Your task to perform on an android device: Go to location settings Image 0: 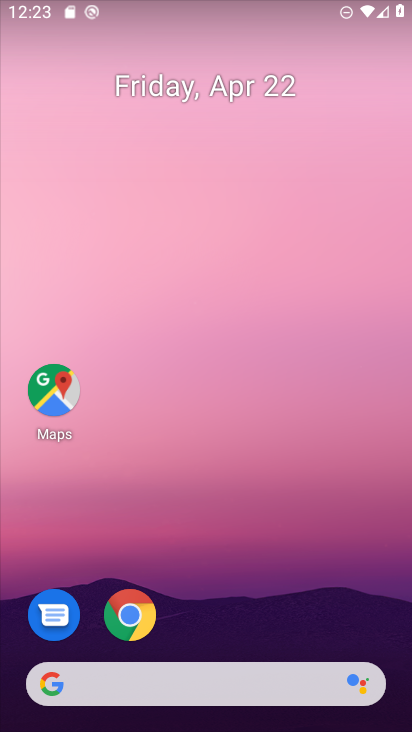
Step 0: drag from (186, 598) to (320, 73)
Your task to perform on an android device: Go to location settings Image 1: 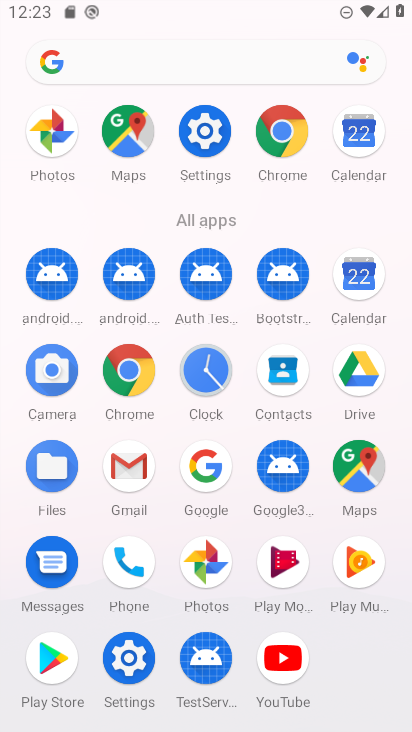
Step 1: click (137, 661)
Your task to perform on an android device: Go to location settings Image 2: 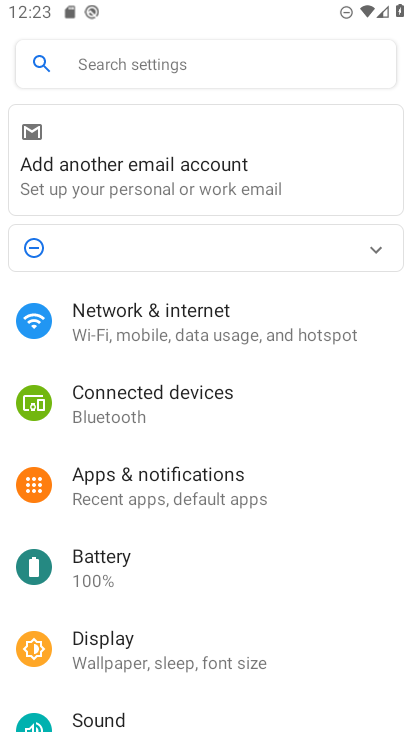
Step 2: drag from (173, 661) to (282, 212)
Your task to perform on an android device: Go to location settings Image 3: 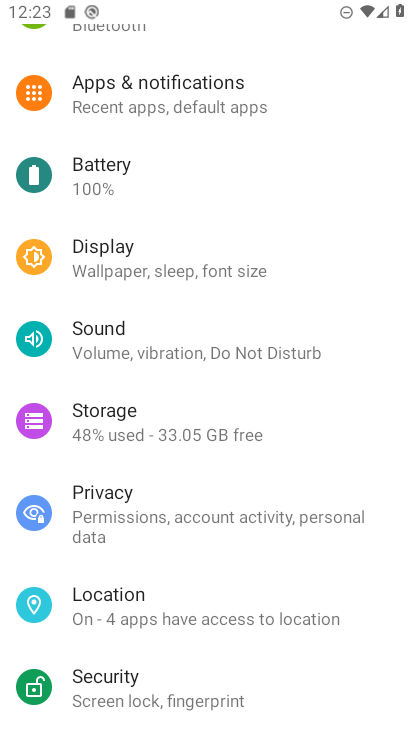
Step 3: click (154, 614)
Your task to perform on an android device: Go to location settings Image 4: 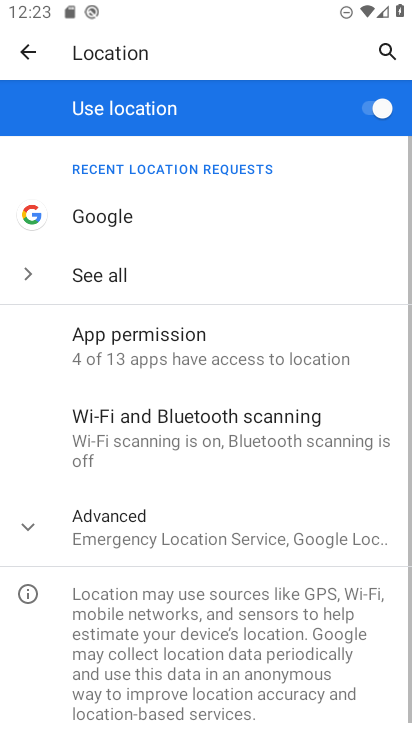
Step 4: task complete